Your task to perform on an android device: toggle notifications settings in the gmail app Image 0: 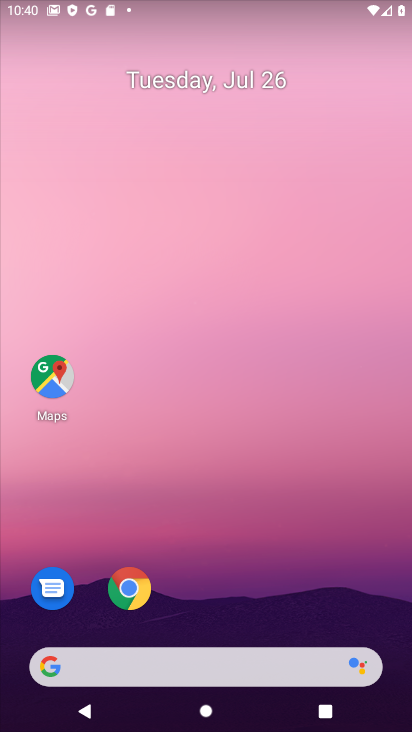
Step 0: press home button
Your task to perform on an android device: toggle notifications settings in the gmail app Image 1: 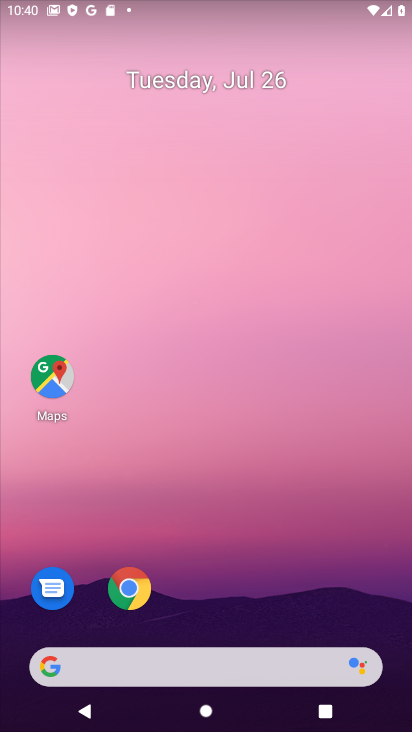
Step 1: drag from (226, 619) to (254, 3)
Your task to perform on an android device: toggle notifications settings in the gmail app Image 2: 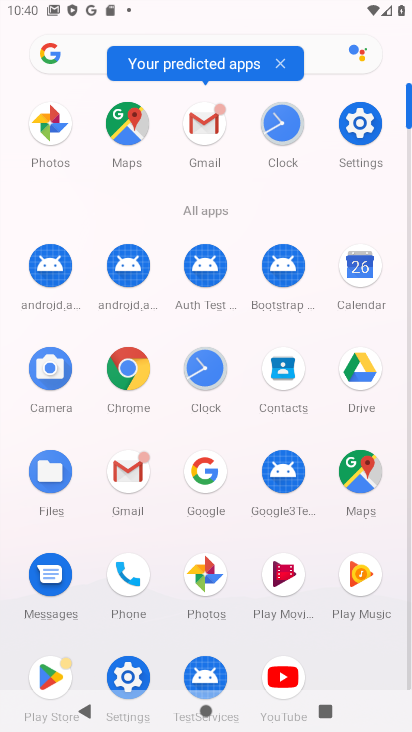
Step 2: click (128, 461)
Your task to perform on an android device: toggle notifications settings in the gmail app Image 3: 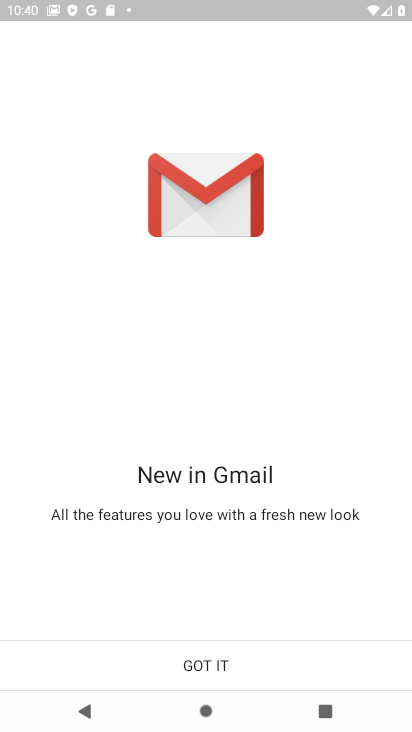
Step 3: click (208, 665)
Your task to perform on an android device: toggle notifications settings in the gmail app Image 4: 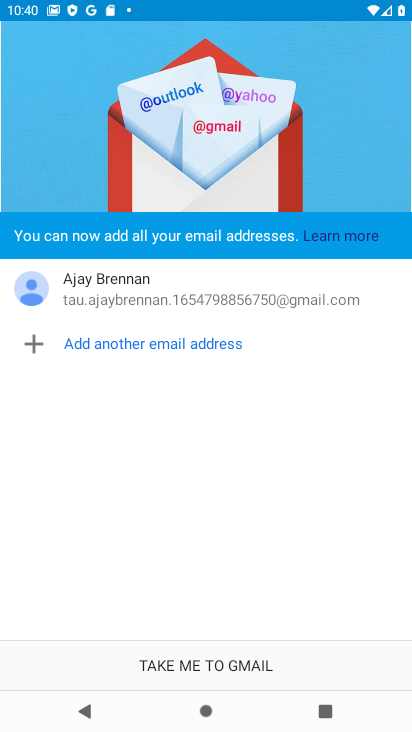
Step 4: click (208, 661)
Your task to perform on an android device: toggle notifications settings in the gmail app Image 5: 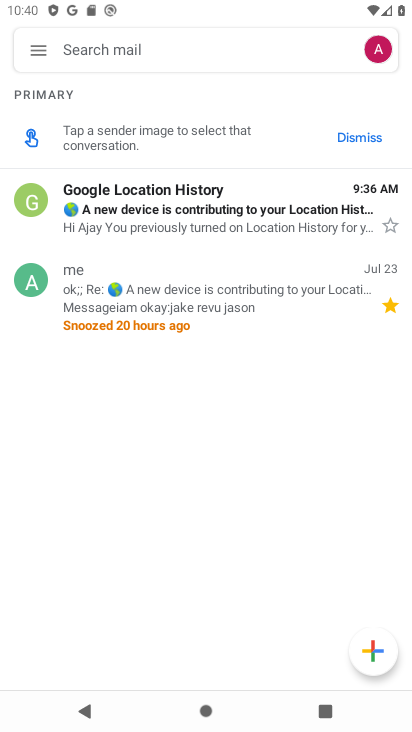
Step 5: click (38, 48)
Your task to perform on an android device: toggle notifications settings in the gmail app Image 6: 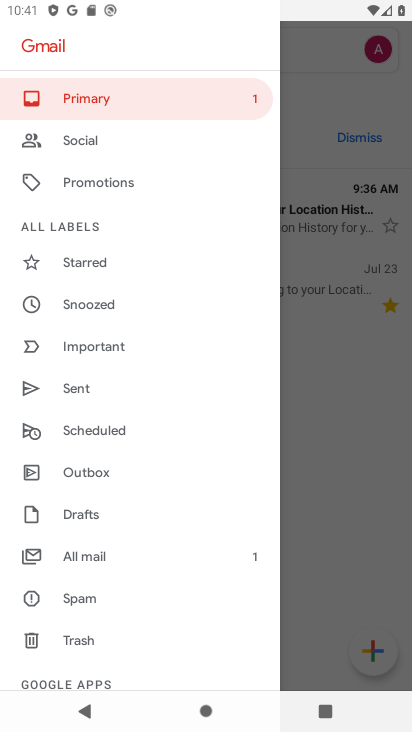
Step 6: drag from (113, 620) to (164, 76)
Your task to perform on an android device: toggle notifications settings in the gmail app Image 7: 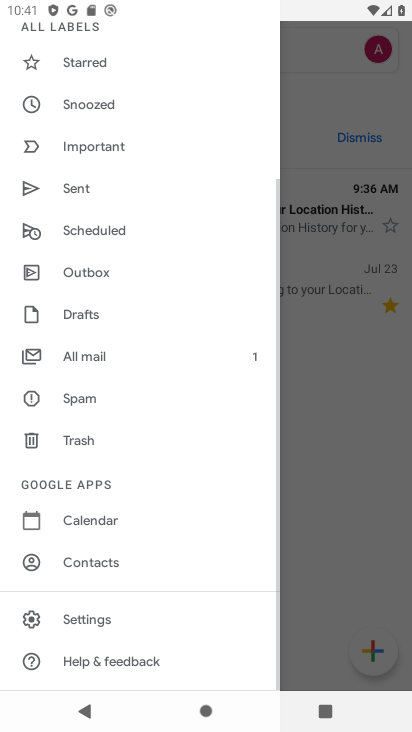
Step 7: click (111, 613)
Your task to perform on an android device: toggle notifications settings in the gmail app Image 8: 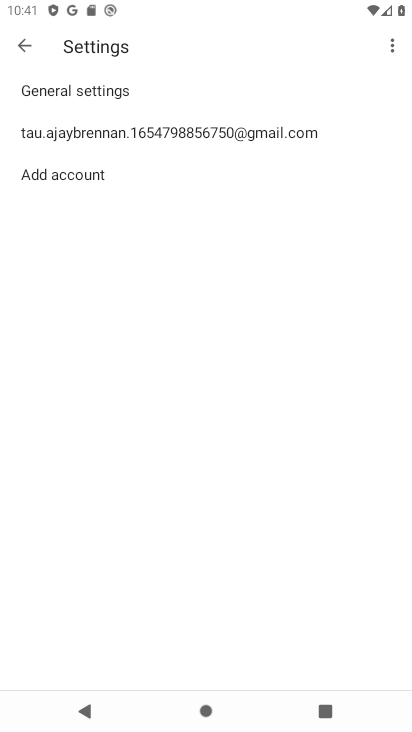
Step 8: click (133, 82)
Your task to perform on an android device: toggle notifications settings in the gmail app Image 9: 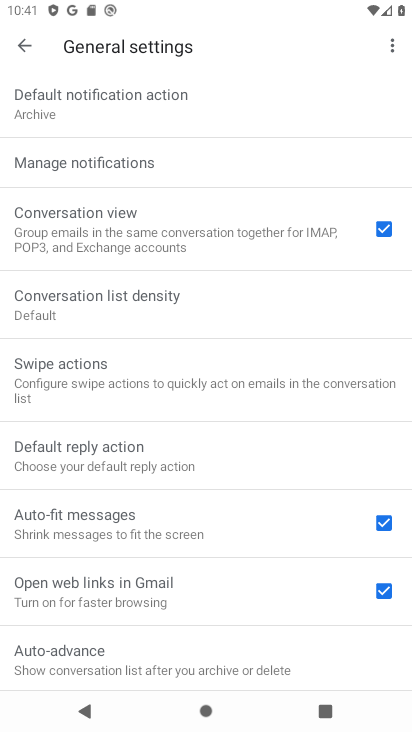
Step 9: click (102, 165)
Your task to perform on an android device: toggle notifications settings in the gmail app Image 10: 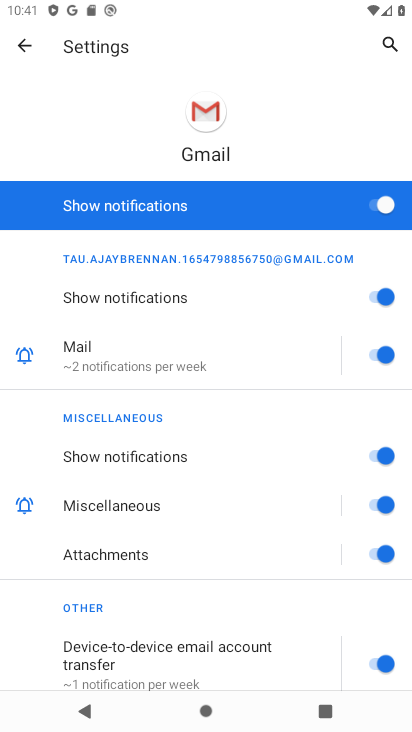
Step 10: click (367, 199)
Your task to perform on an android device: toggle notifications settings in the gmail app Image 11: 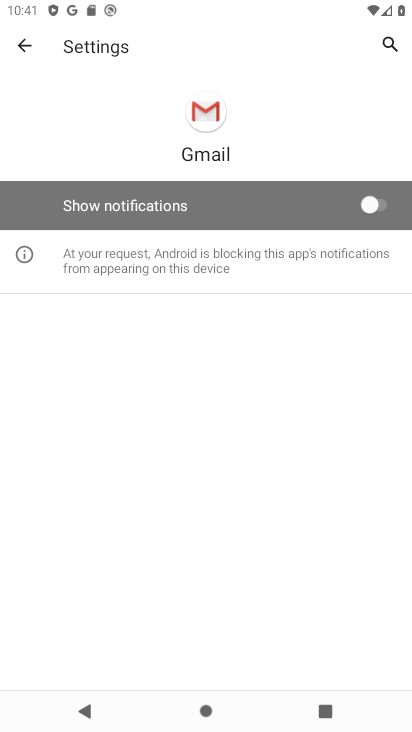
Step 11: task complete